Your task to perform on an android device: choose inbox layout in the gmail app Image 0: 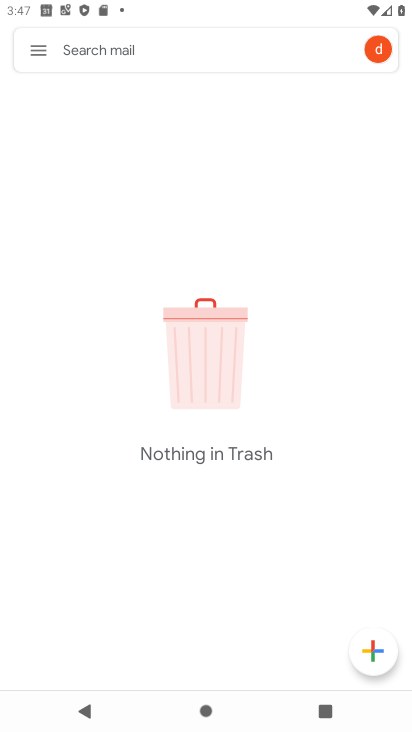
Step 0: press home button
Your task to perform on an android device: choose inbox layout in the gmail app Image 1: 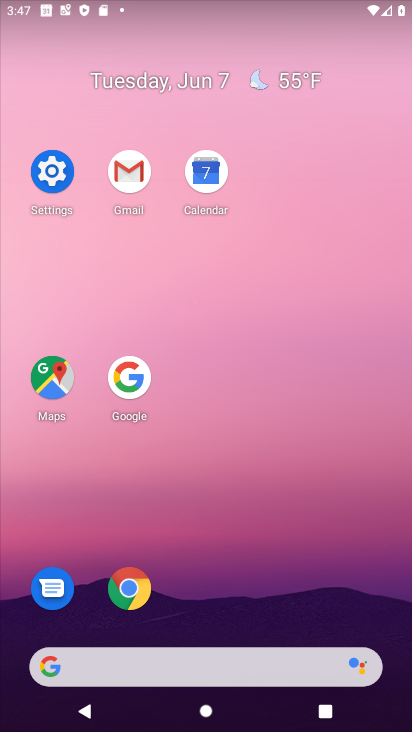
Step 1: click (140, 177)
Your task to perform on an android device: choose inbox layout in the gmail app Image 2: 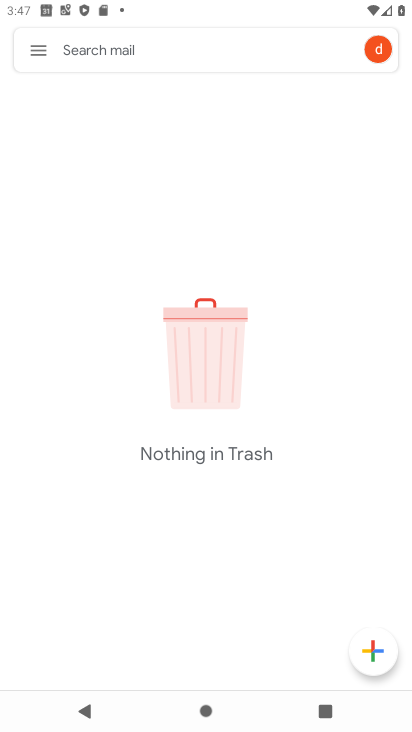
Step 2: click (43, 57)
Your task to perform on an android device: choose inbox layout in the gmail app Image 3: 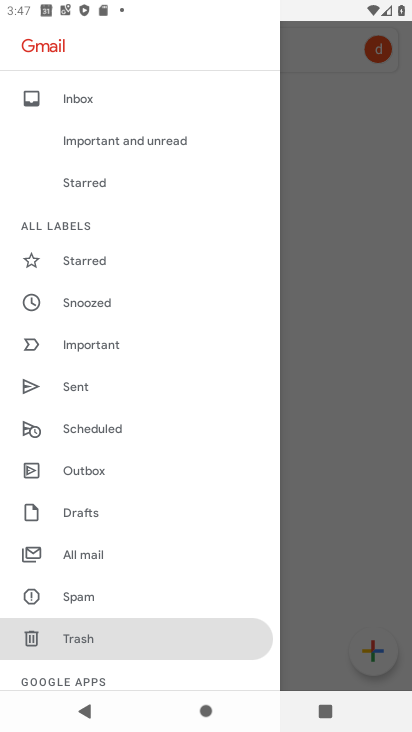
Step 3: drag from (158, 542) to (146, 175)
Your task to perform on an android device: choose inbox layout in the gmail app Image 4: 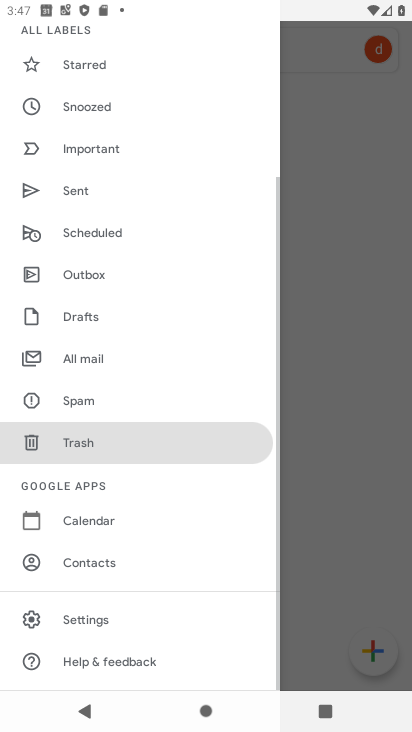
Step 4: click (153, 615)
Your task to perform on an android device: choose inbox layout in the gmail app Image 5: 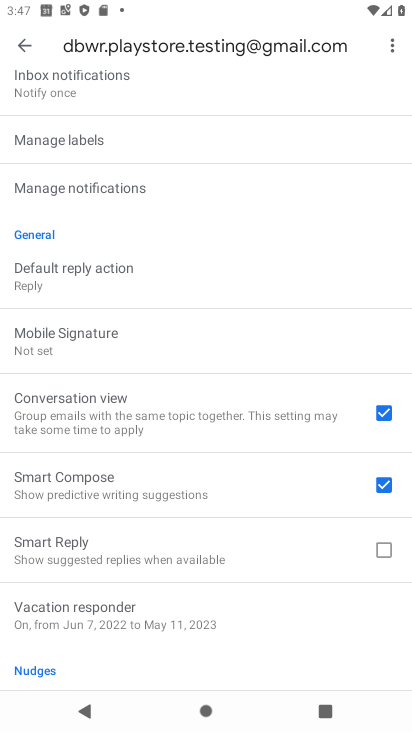
Step 5: drag from (196, 186) to (187, 553)
Your task to perform on an android device: choose inbox layout in the gmail app Image 6: 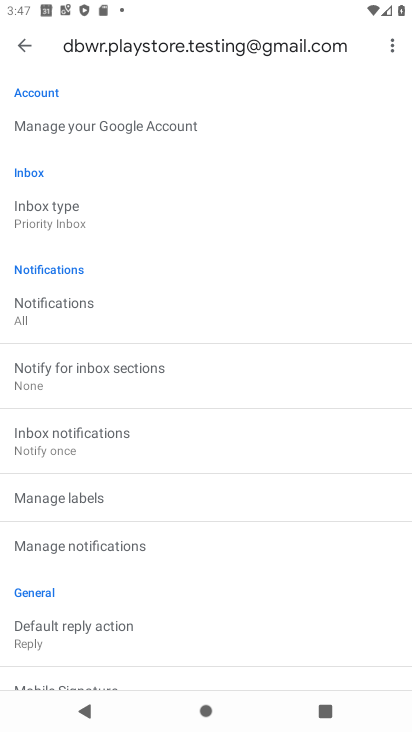
Step 6: click (85, 208)
Your task to perform on an android device: choose inbox layout in the gmail app Image 7: 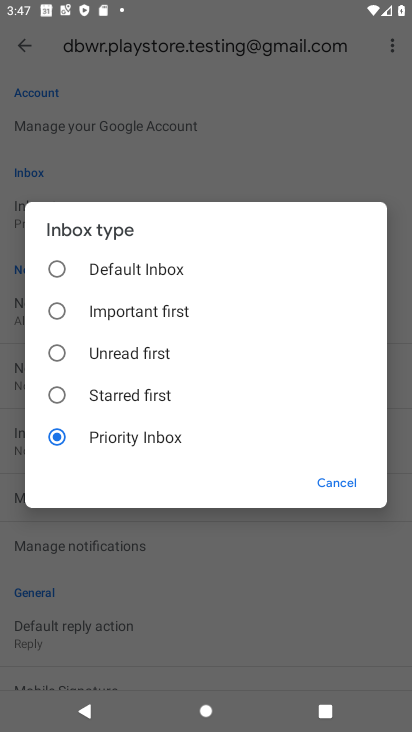
Step 7: click (344, 476)
Your task to perform on an android device: choose inbox layout in the gmail app Image 8: 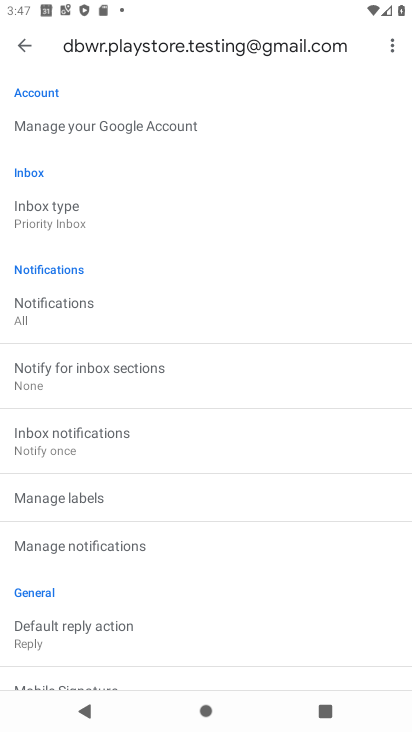
Step 8: click (97, 220)
Your task to perform on an android device: choose inbox layout in the gmail app Image 9: 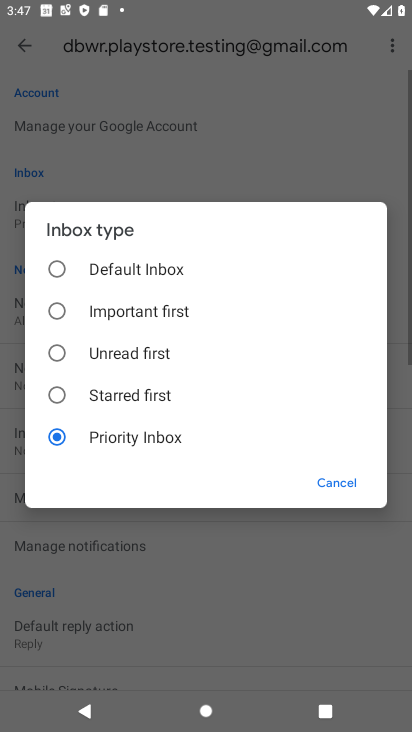
Step 9: task complete